Your task to perform on an android device: toggle pop-ups in chrome Image 0: 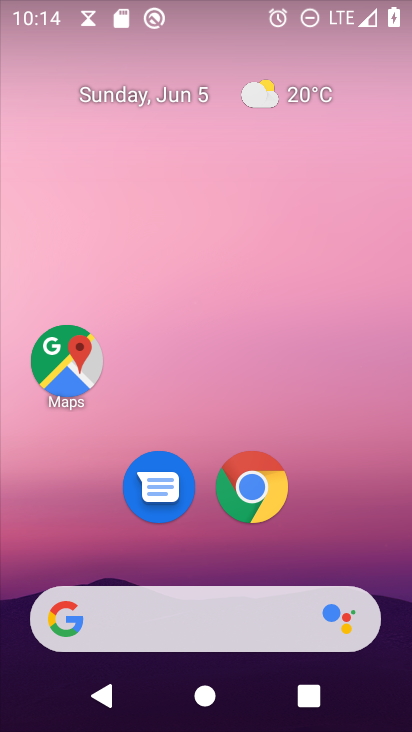
Step 0: click (266, 465)
Your task to perform on an android device: toggle pop-ups in chrome Image 1: 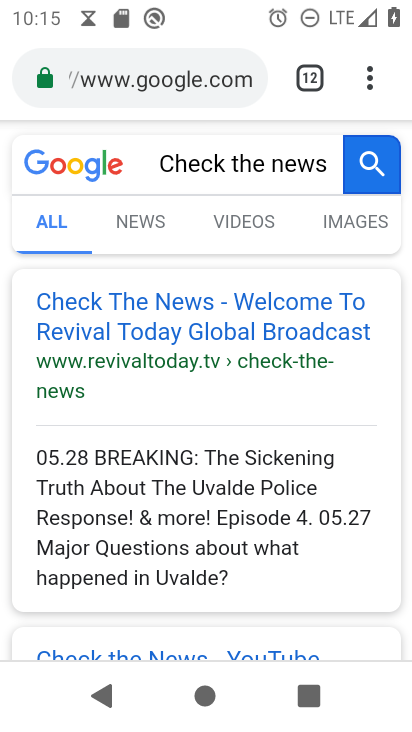
Step 1: click (375, 73)
Your task to perform on an android device: toggle pop-ups in chrome Image 2: 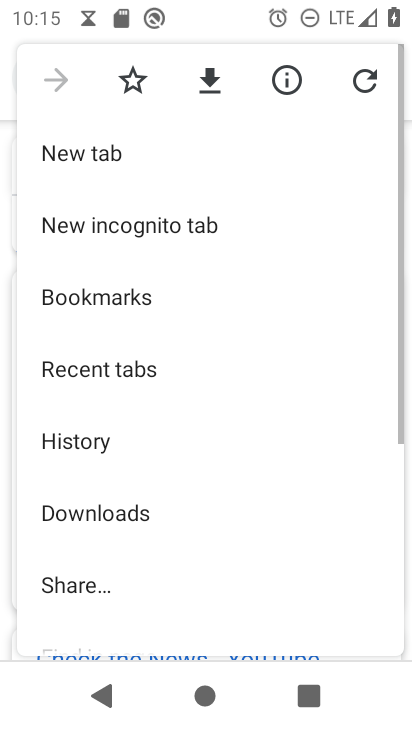
Step 2: drag from (162, 558) to (222, 214)
Your task to perform on an android device: toggle pop-ups in chrome Image 3: 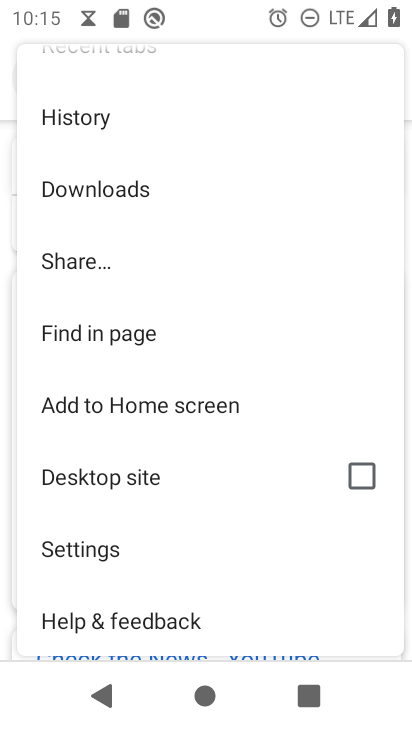
Step 3: click (149, 534)
Your task to perform on an android device: toggle pop-ups in chrome Image 4: 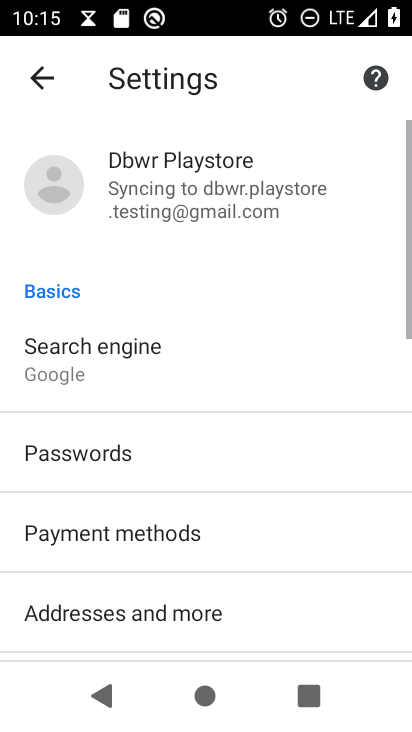
Step 4: drag from (192, 601) to (282, 213)
Your task to perform on an android device: toggle pop-ups in chrome Image 5: 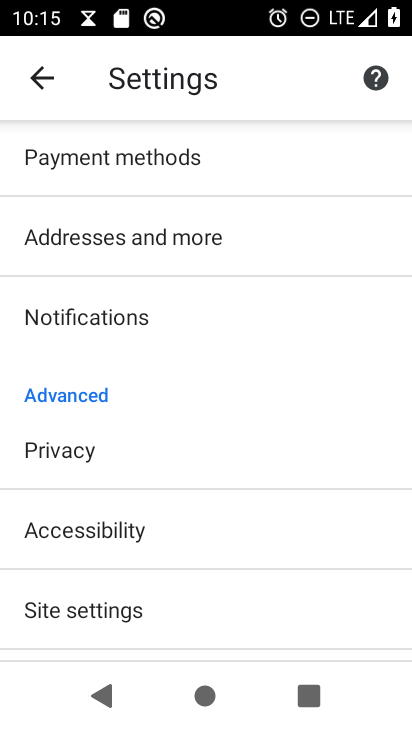
Step 5: click (116, 591)
Your task to perform on an android device: toggle pop-ups in chrome Image 6: 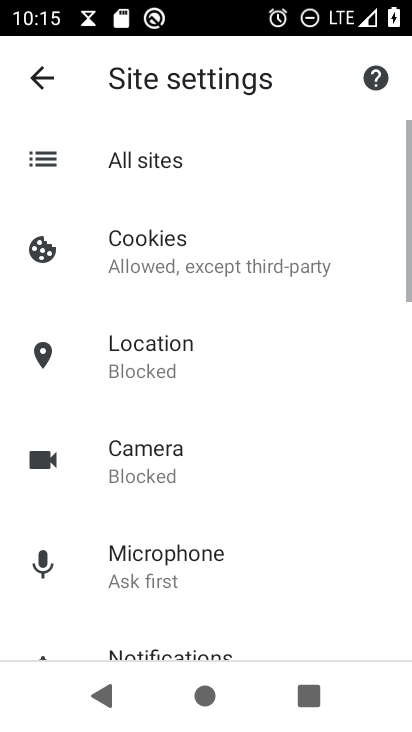
Step 6: drag from (186, 590) to (234, 176)
Your task to perform on an android device: toggle pop-ups in chrome Image 7: 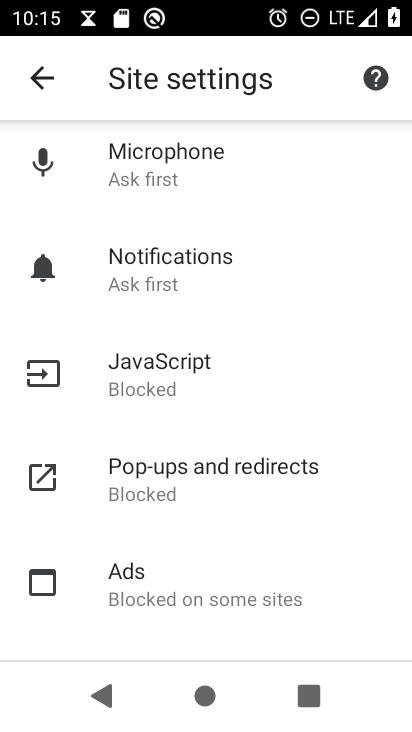
Step 7: click (164, 472)
Your task to perform on an android device: toggle pop-ups in chrome Image 8: 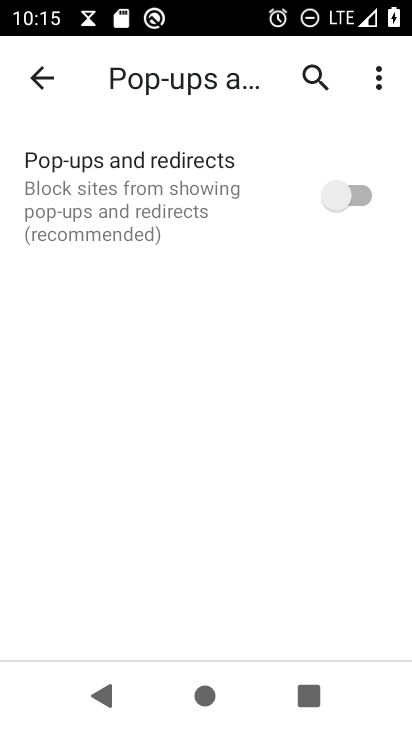
Step 8: click (348, 193)
Your task to perform on an android device: toggle pop-ups in chrome Image 9: 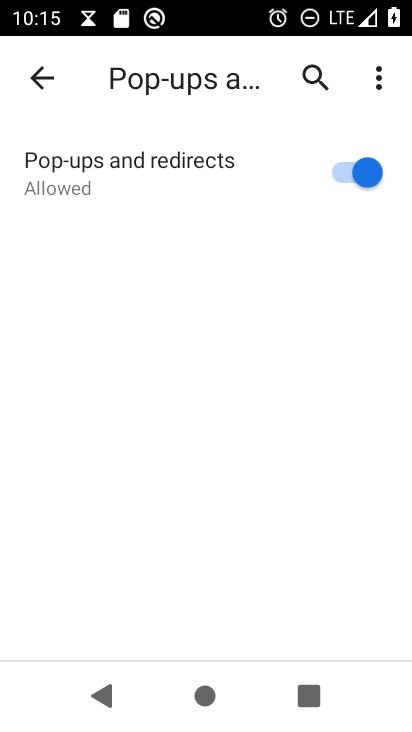
Step 9: task complete